Your task to perform on an android device: Go to settings Image 0: 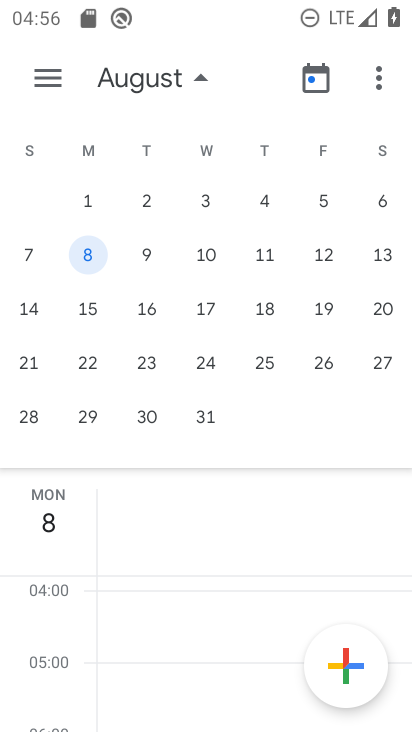
Step 0: press back button
Your task to perform on an android device: Go to settings Image 1: 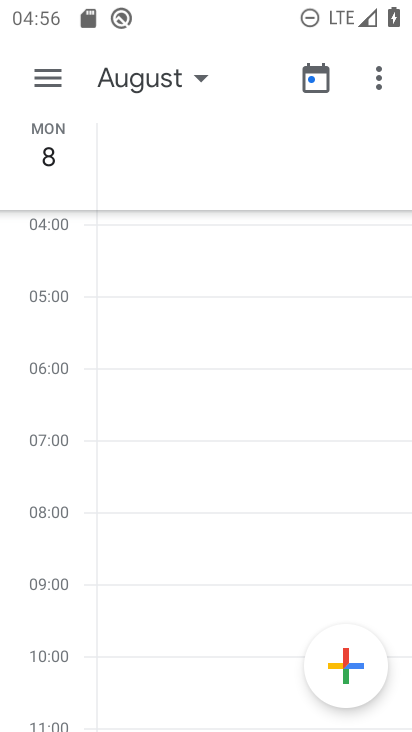
Step 1: press back button
Your task to perform on an android device: Go to settings Image 2: 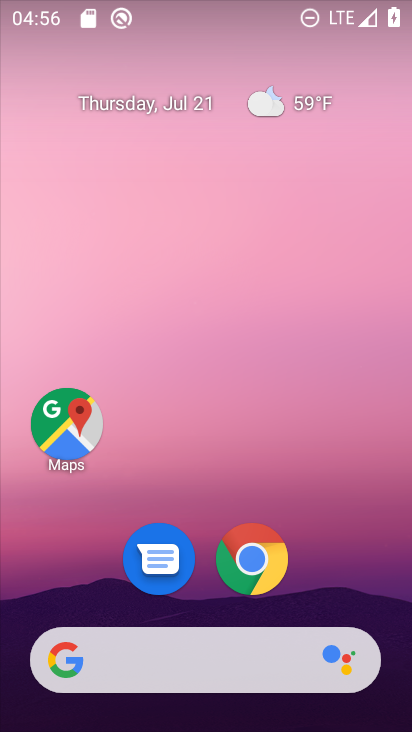
Step 2: drag from (57, 577) to (200, 8)
Your task to perform on an android device: Go to settings Image 3: 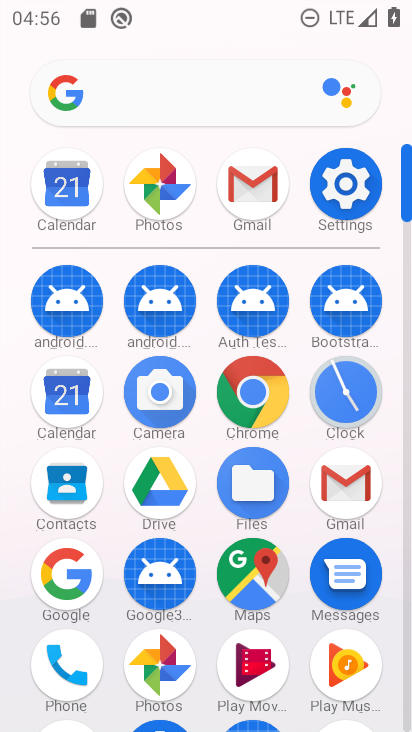
Step 3: click (341, 171)
Your task to perform on an android device: Go to settings Image 4: 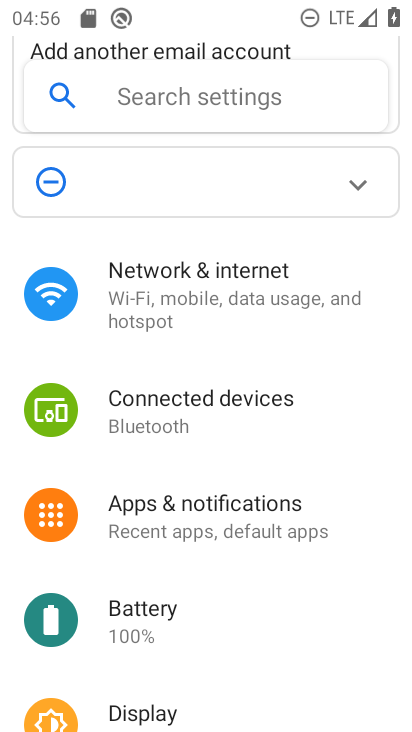
Step 4: task complete